Your task to perform on an android device: turn on airplane mode Image 0: 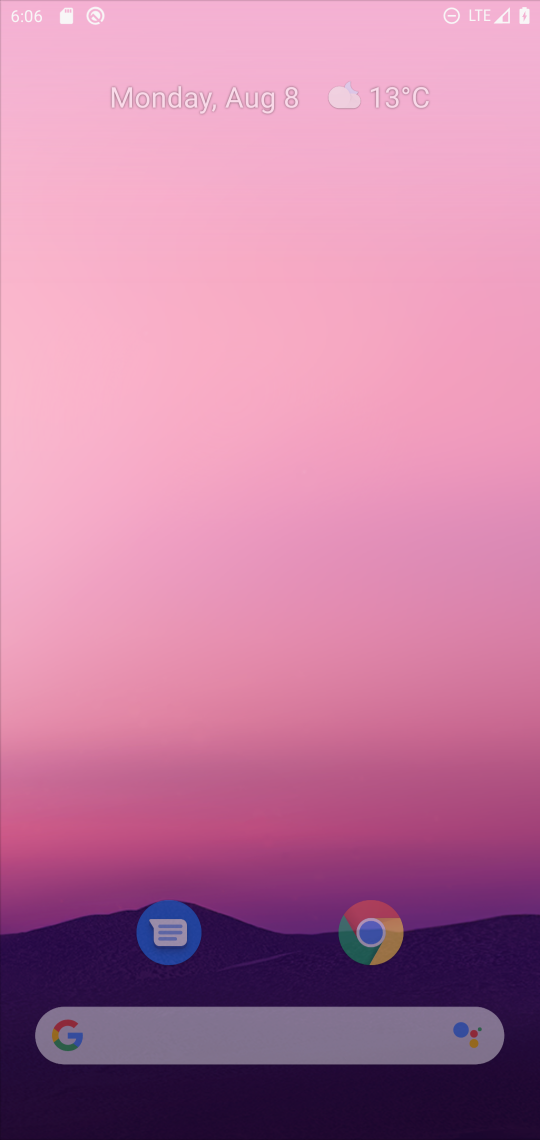
Step 0: press home button
Your task to perform on an android device: turn on airplane mode Image 1: 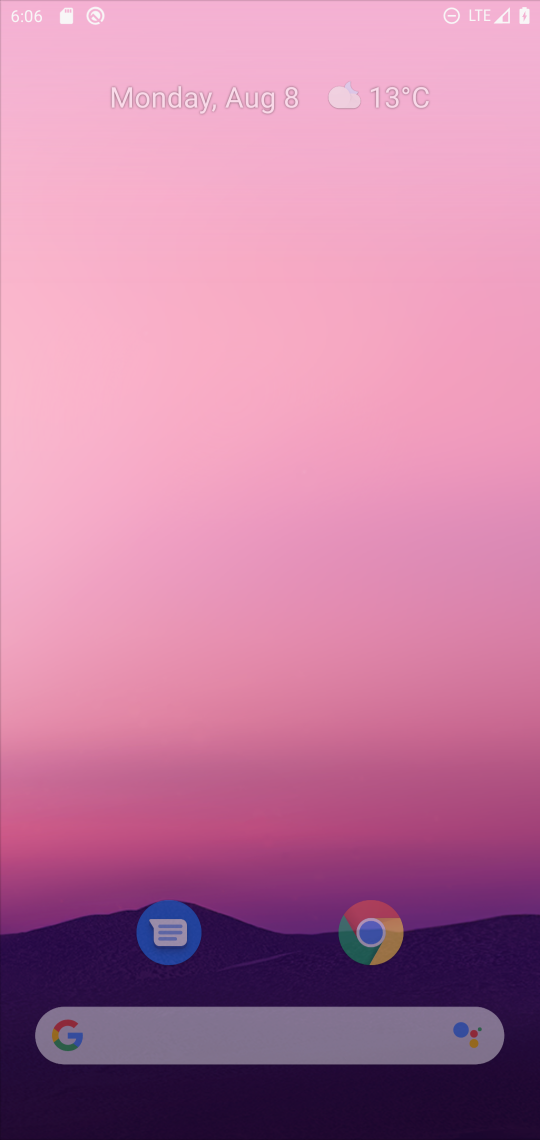
Step 1: click (333, 258)
Your task to perform on an android device: turn on airplane mode Image 2: 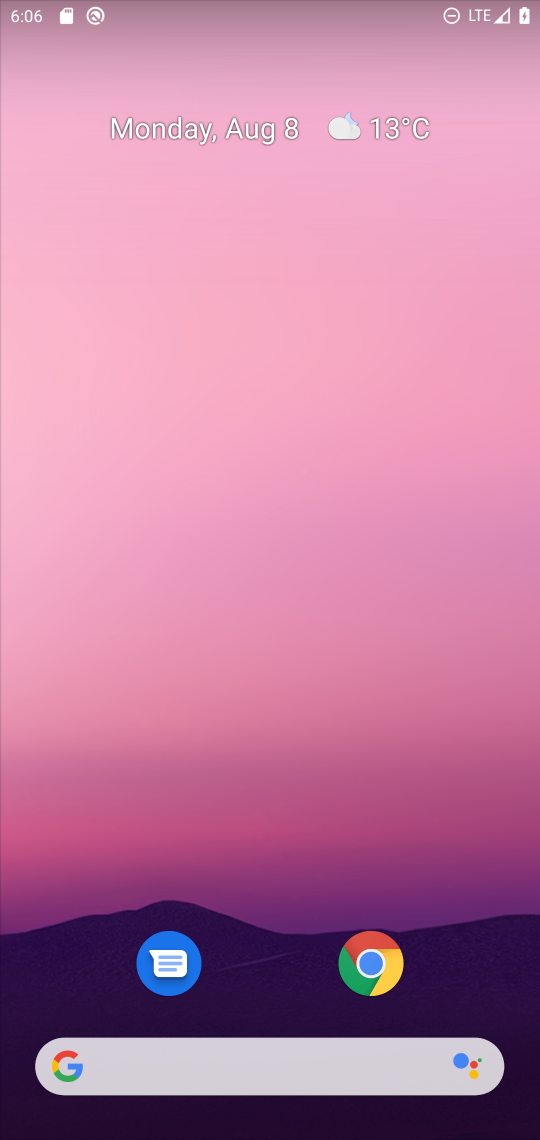
Step 2: drag from (249, 719) to (264, 115)
Your task to perform on an android device: turn on airplane mode Image 3: 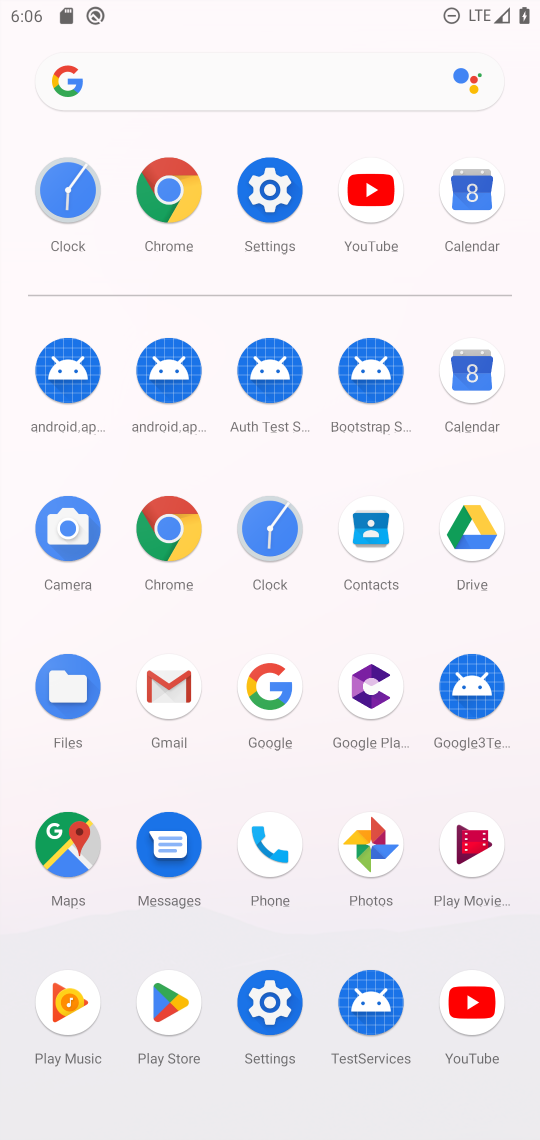
Step 3: click (254, 174)
Your task to perform on an android device: turn on airplane mode Image 4: 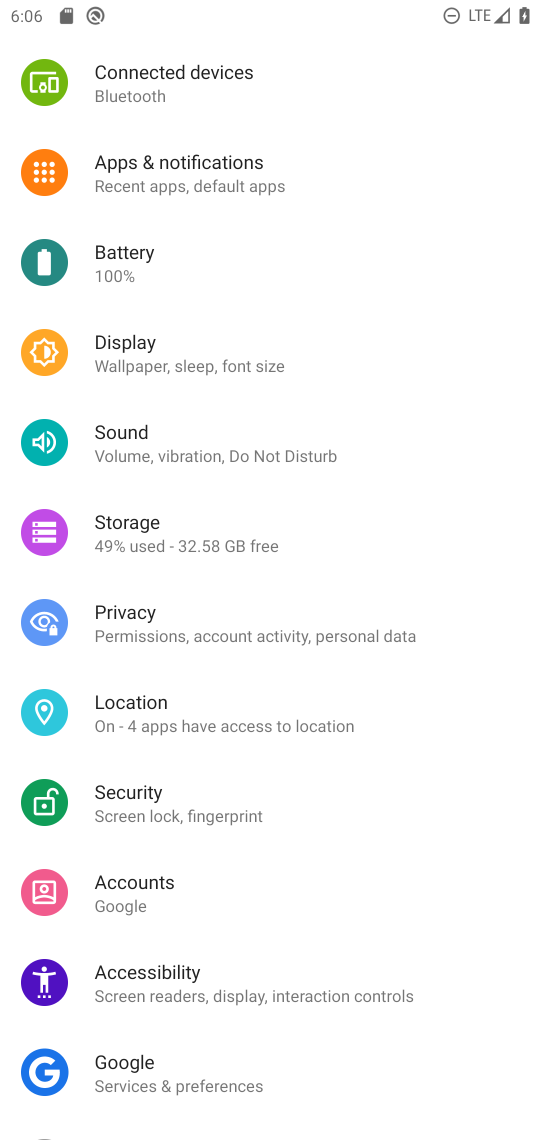
Step 4: drag from (207, 113) to (306, 672)
Your task to perform on an android device: turn on airplane mode Image 5: 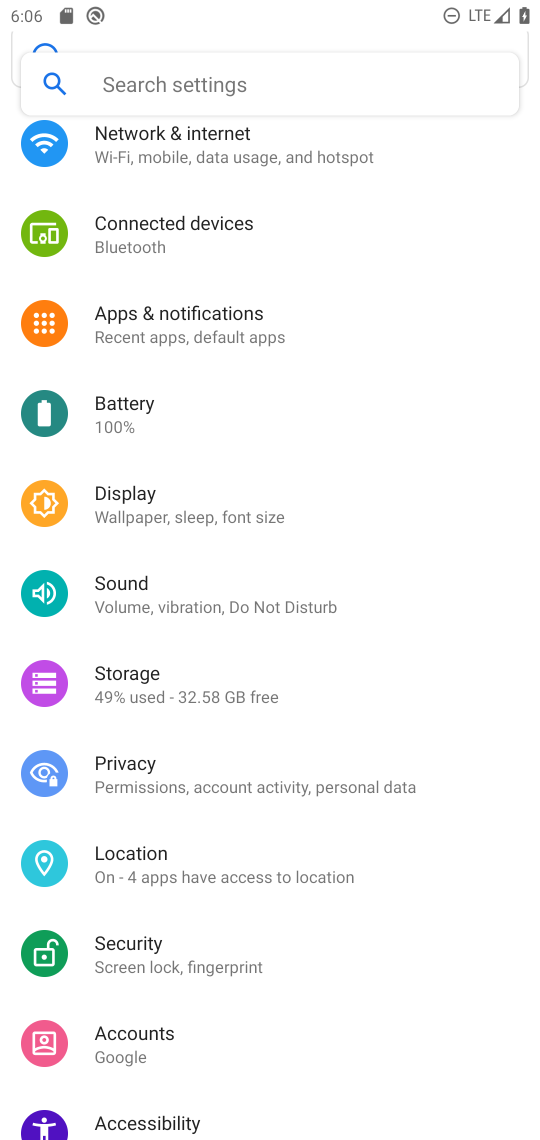
Step 5: click (266, 137)
Your task to perform on an android device: turn on airplane mode Image 6: 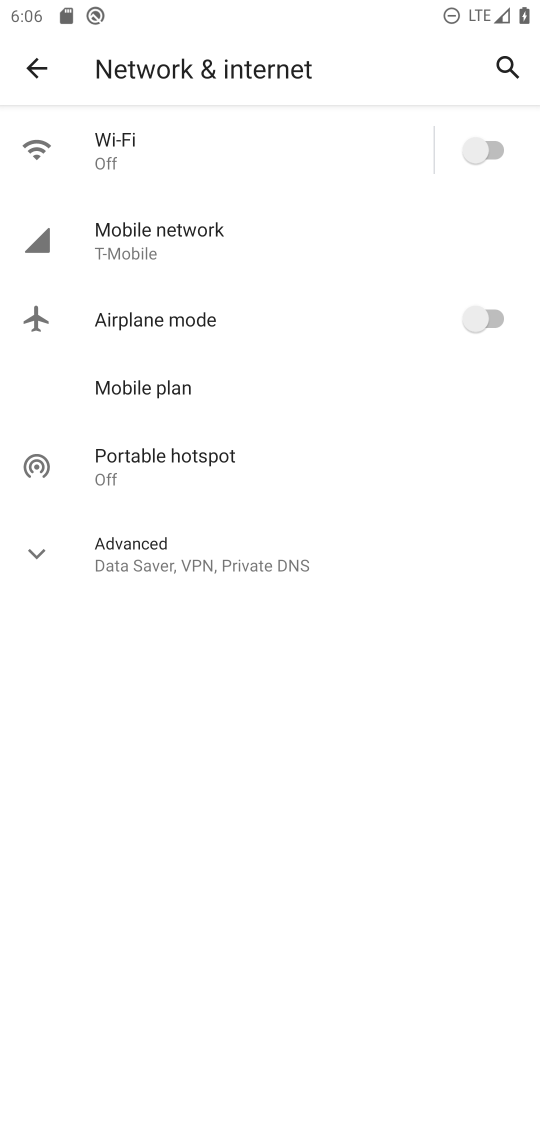
Step 6: click (483, 324)
Your task to perform on an android device: turn on airplane mode Image 7: 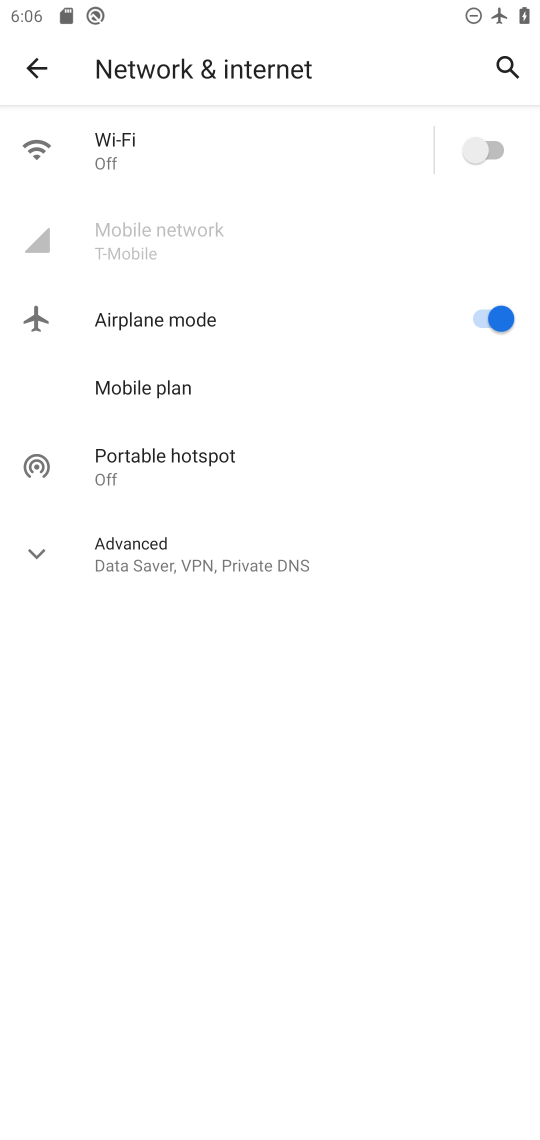
Step 7: task complete